Your task to perform on an android device: Search for vegetarian restaurants on Maps Image 0: 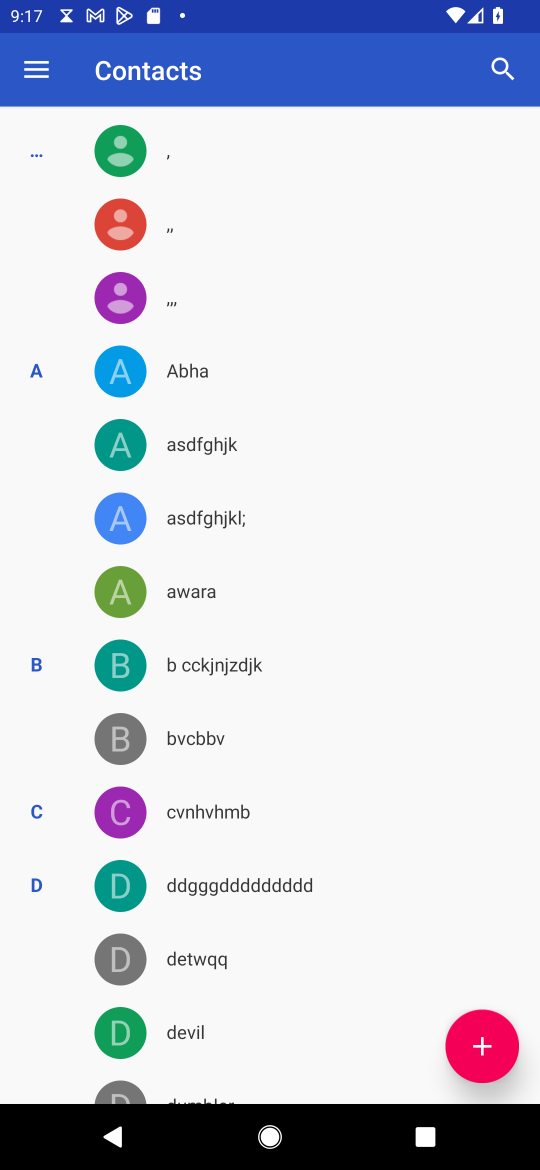
Step 0: press home button
Your task to perform on an android device: Search for vegetarian restaurants on Maps Image 1: 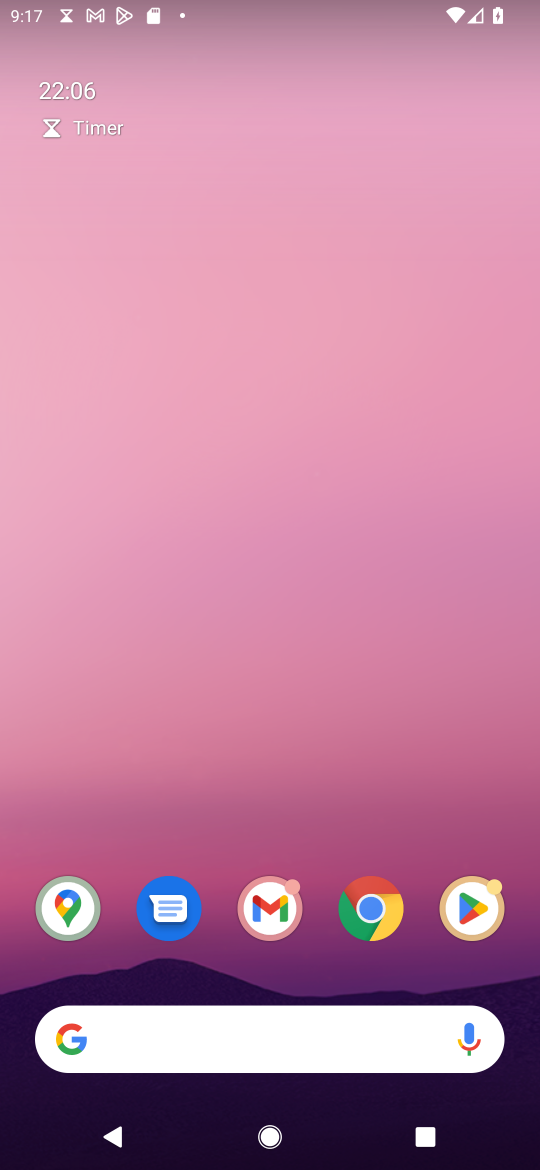
Step 1: click (48, 924)
Your task to perform on an android device: Search for vegetarian restaurants on Maps Image 2: 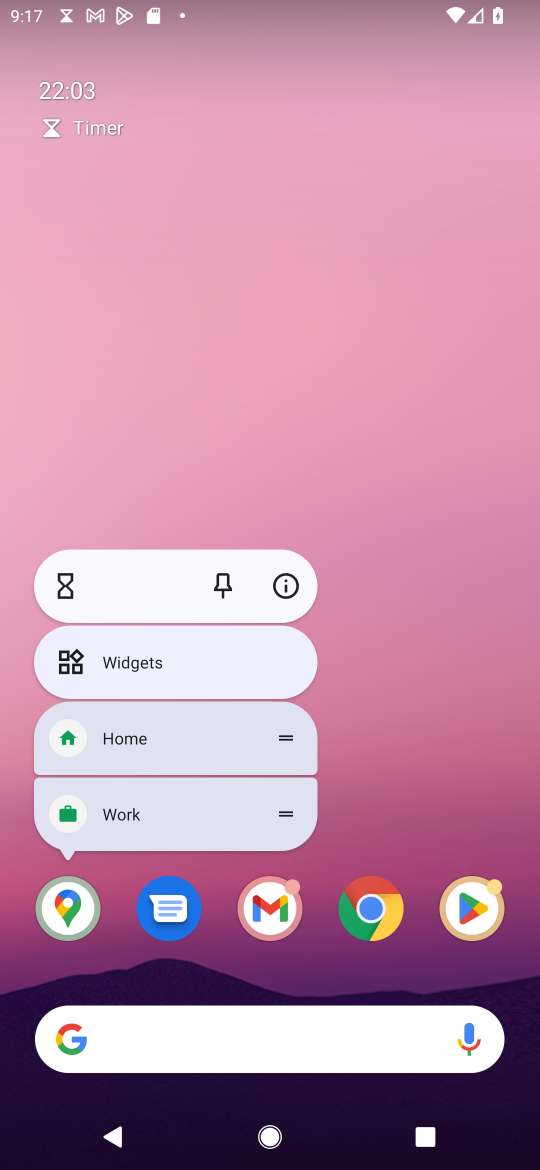
Step 2: click (48, 924)
Your task to perform on an android device: Search for vegetarian restaurants on Maps Image 3: 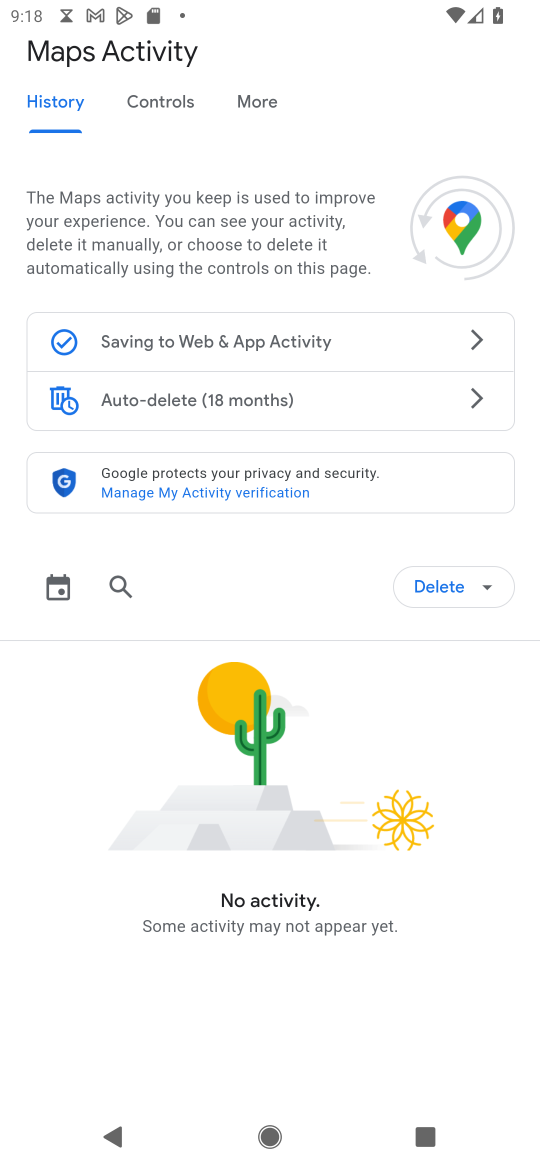
Step 3: press back button
Your task to perform on an android device: Search for vegetarian restaurants on Maps Image 4: 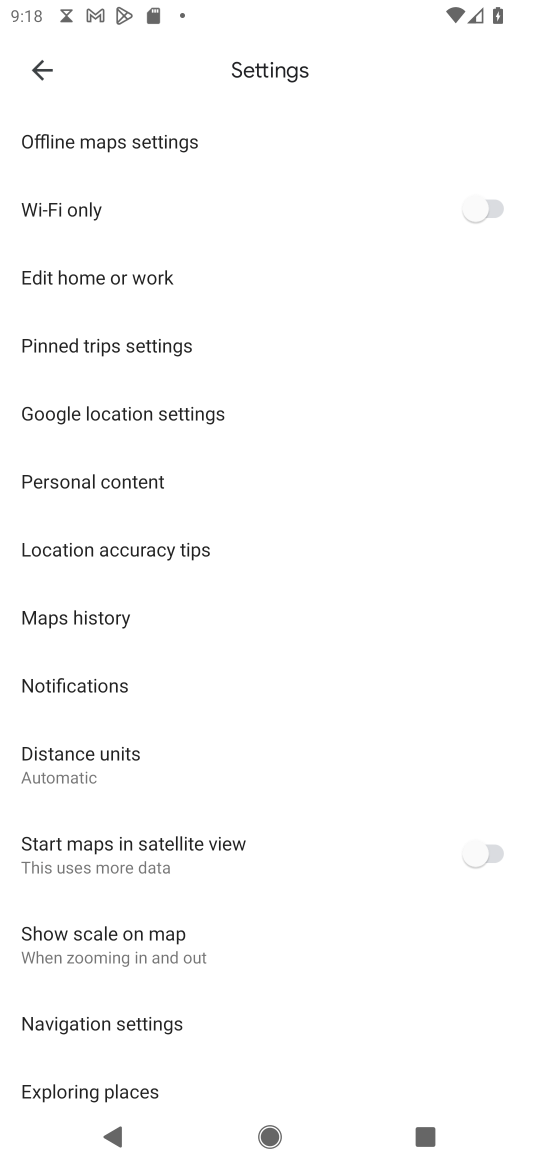
Step 4: press back button
Your task to perform on an android device: Search for vegetarian restaurants on Maps Image 5: 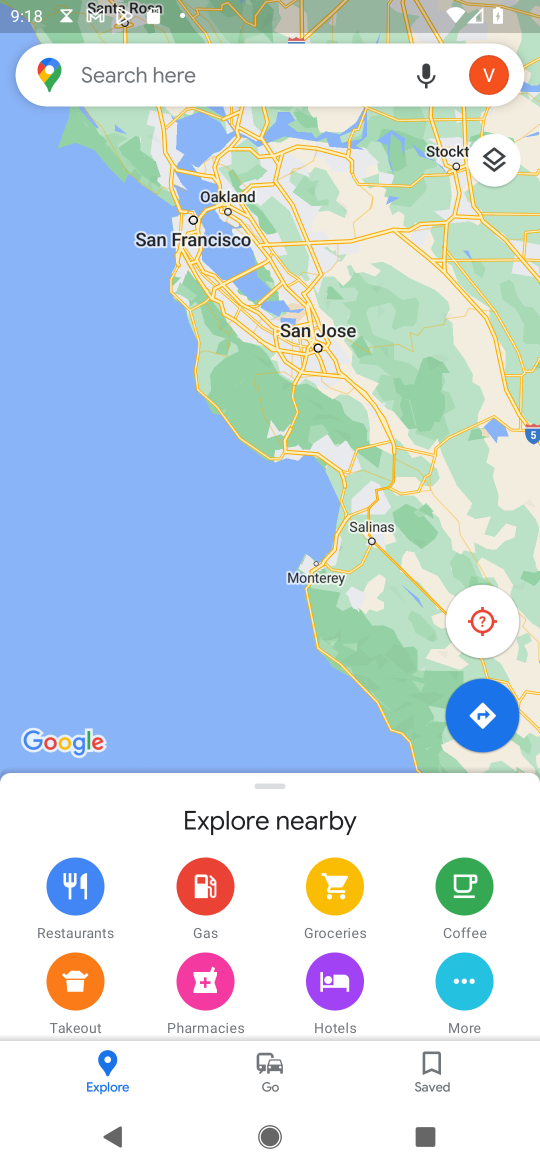
Step 5: click (208, 80)
Your task to perform on an android device: Search for vegetarian restaurants on Maps Image 6: 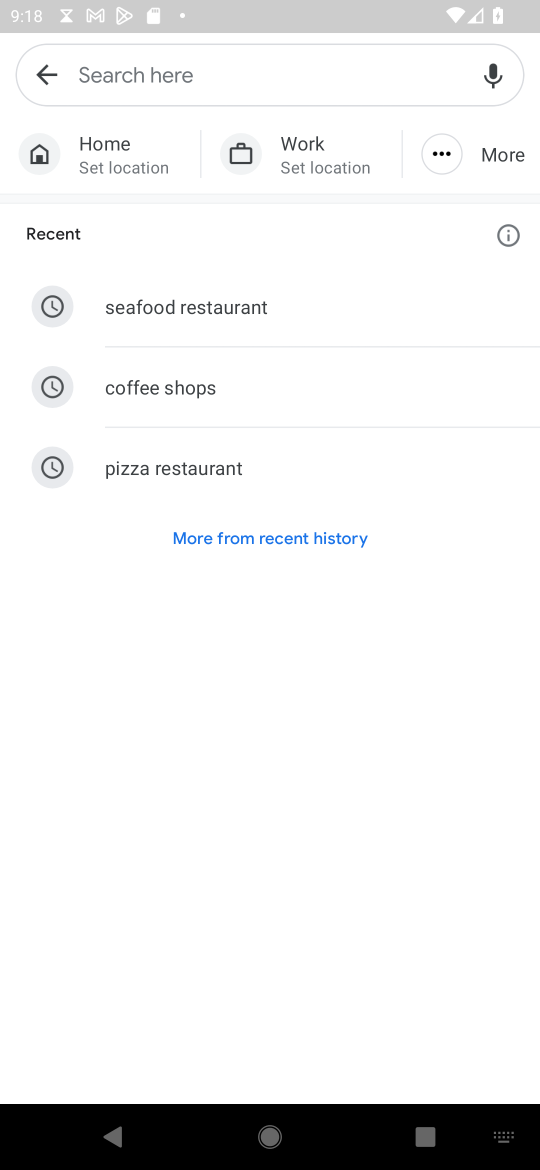
Step 6: type "vegetarian restauranst"
Your task to perform on an android device: Search for vegetarian restaurants on Maps Image 7: 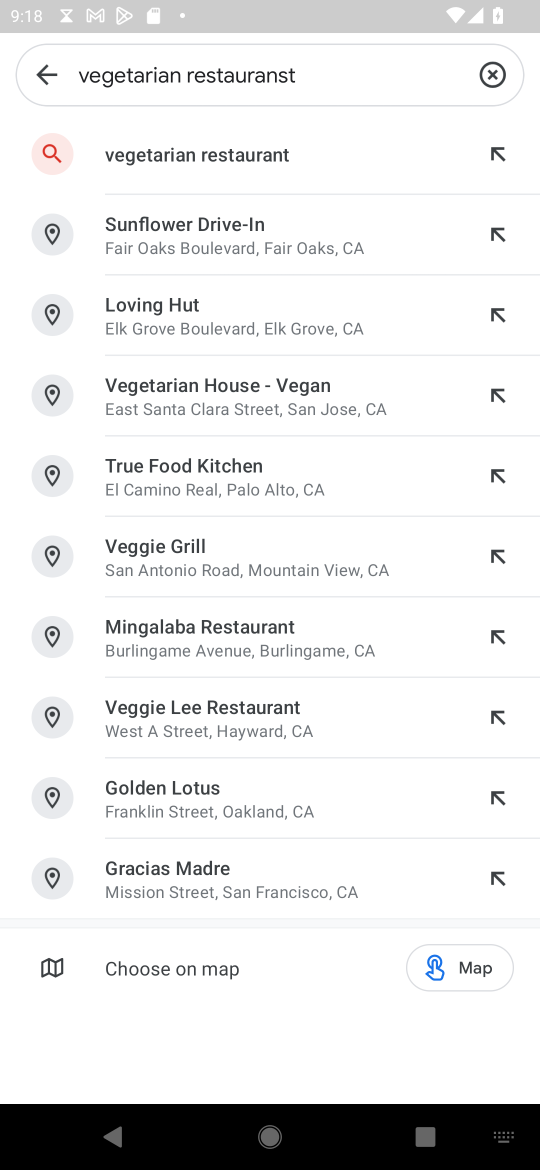
Step 7: click (192, 179)
Your task to perform on an android device: Search for vegetarian restaurants on Maps Image 8: 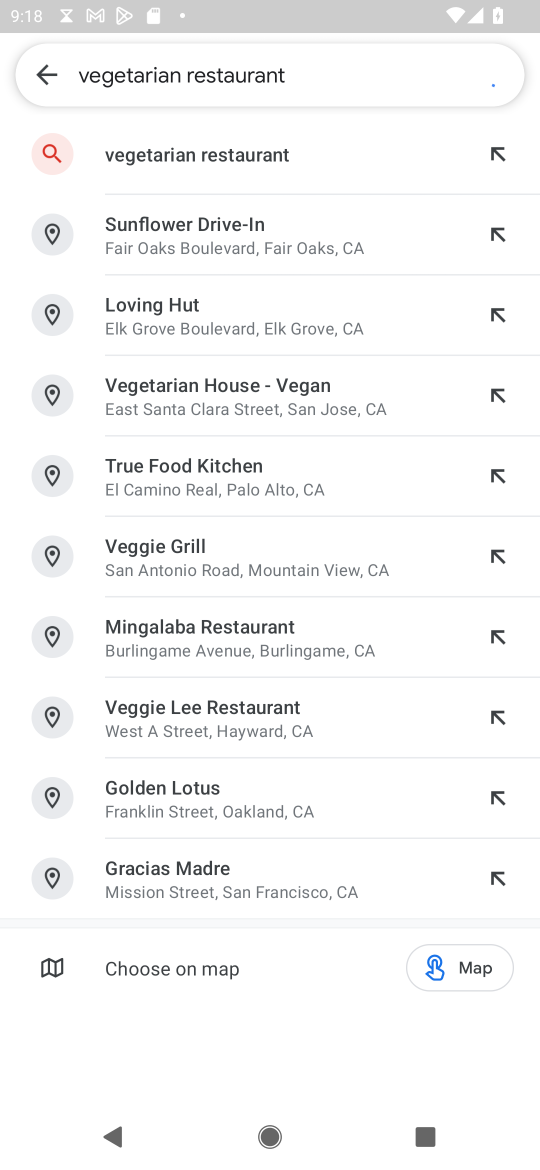
Step 8: task complete